Your task to perform on an android device: Go to network settings Image 0: 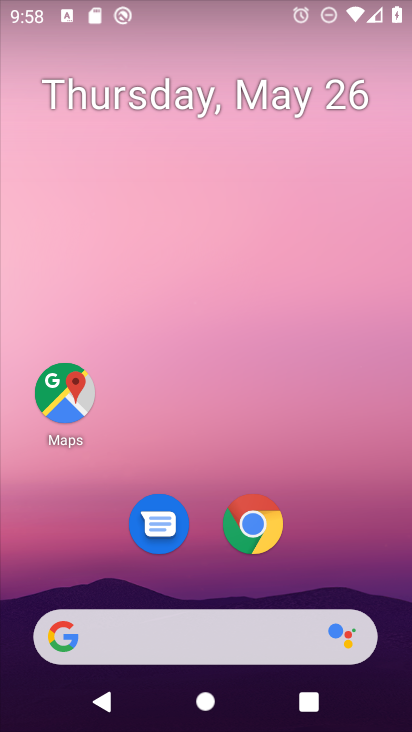
Step 0: drag from (226, 394) to (228, 0)
Your task to perform on an android device: Go to network settings Image 1: 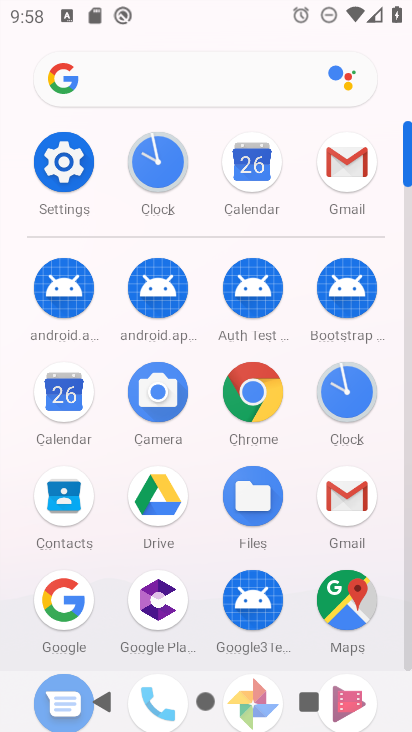
Step 1: click (65, 158)
Your task to perform on an android device: Go to network settings Image 2: 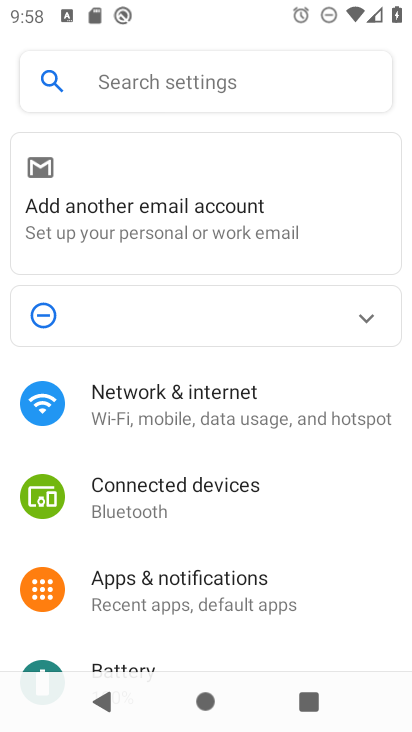
Step 2: click (243, 397)
Your task to perform on an android device: Go to network settings Image 3: 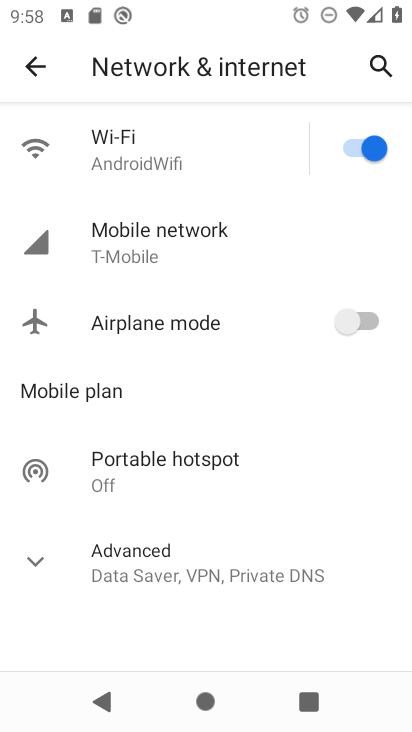
Step 3: task complete